Your task to perform on an android device: Open Google Maps Image 0: 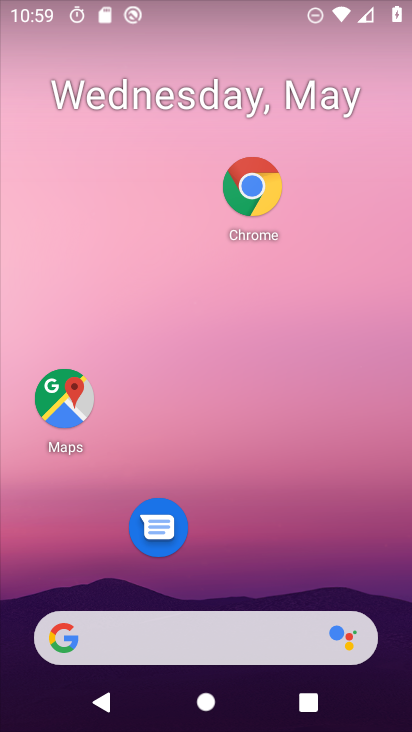
Step 0: drag from (181, 608) to (231, 72)
Your task to perform on an android device: Open Google Maps Image 1: 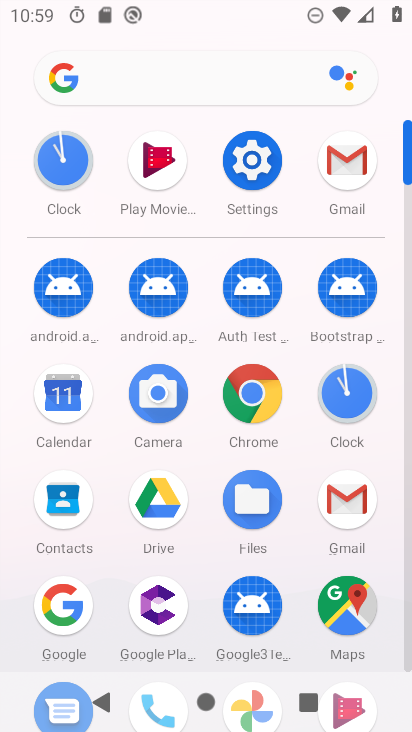
Step 1: click (349, 618)
Your task to perform on an android device: Open Google Maps Image 2: 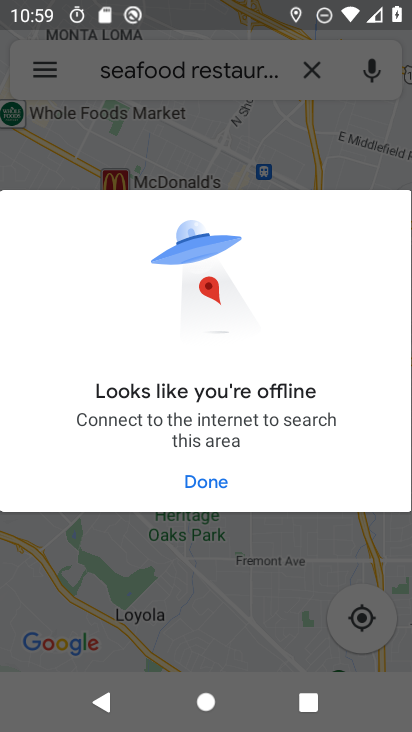
Step 2: click (205, 477)
Your task to perform on an android device: Open Google Maps Image 3: 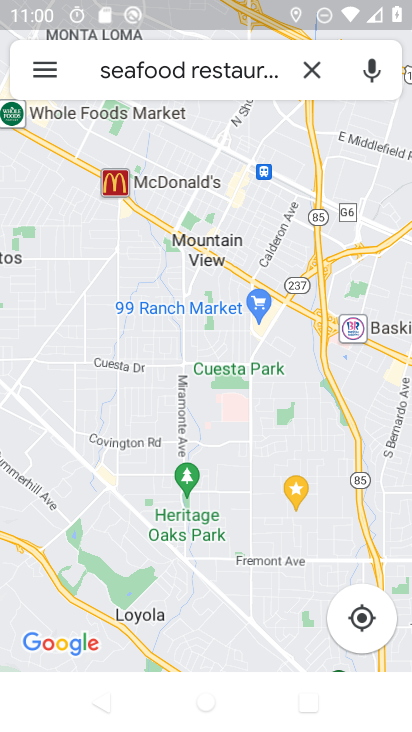
Step 3: task complete